Your task to perform on an android device: Open calendar and show me the fourth week of next month Image 0: 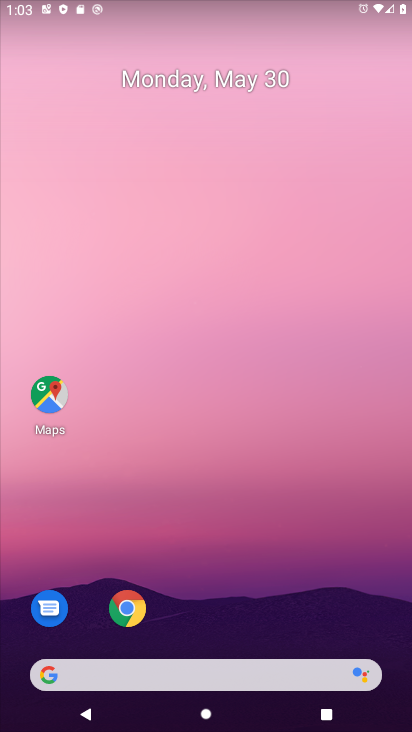
Step 0: drag from (193, 235) to (193, 163)
Your task to perform on an android device: Open calendar and show me the fourth week of next month Image 1: 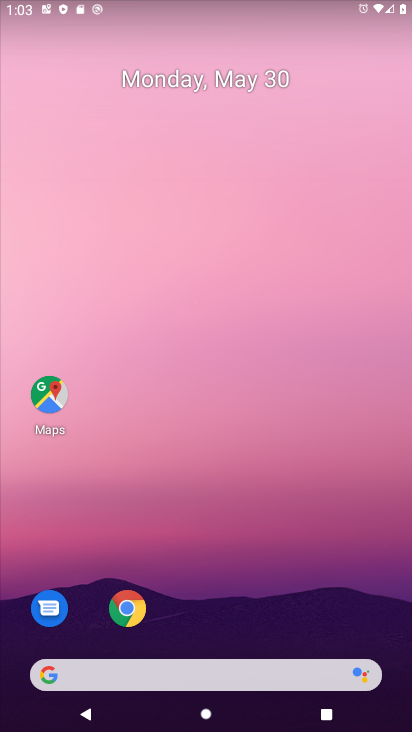
Step 1: drag from (240, 678) to (236, 107)
Your task to perform on an android device: Open calendar and show me the fourth week of next month Image 2: 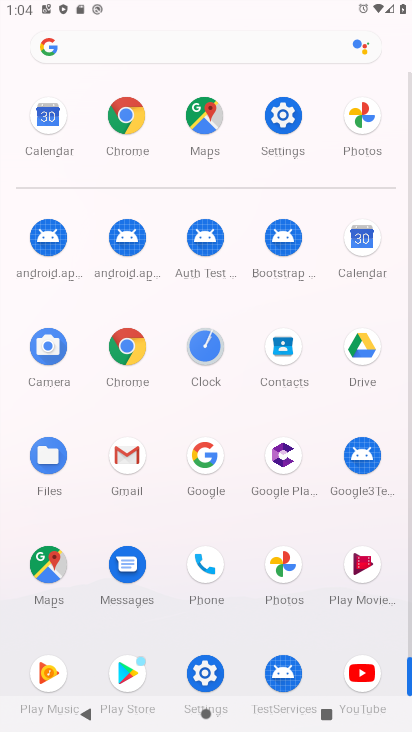
Step 2: click (367, 237)
Your task to perform on an android device: Open calendar and show me the fourth week of next month Image 3: 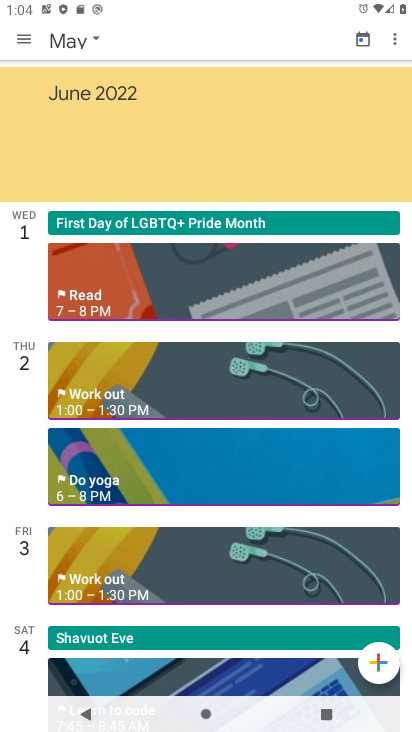
Step 3: click (23, 30)
Your task to perform on an android device: Open calendar and show me the fourth week of next month Image 4: 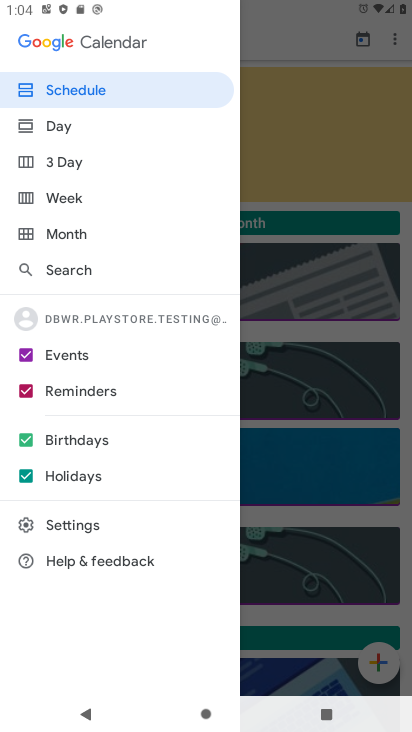
Step 4: click (75, 198)
Your task to perform on an android device: Open calendar and show me the fourth week of next month Image 5: 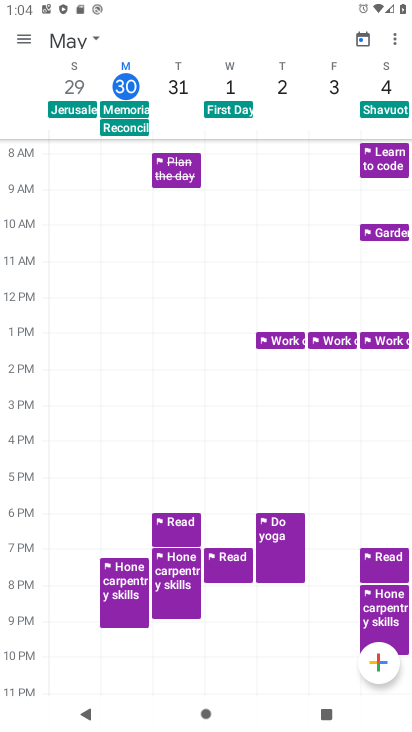
Step 5: click (14, 40)
Your task to perform on an android device: Open calendar and show me the fourth week of next month Image 6: 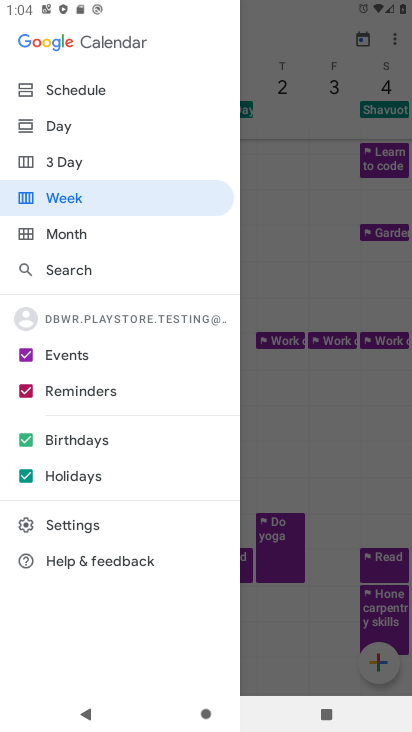
Step 6: click (83, 235)
Your task to perform on an android device: Open calendar and show me the fourth week of next month Image 7: 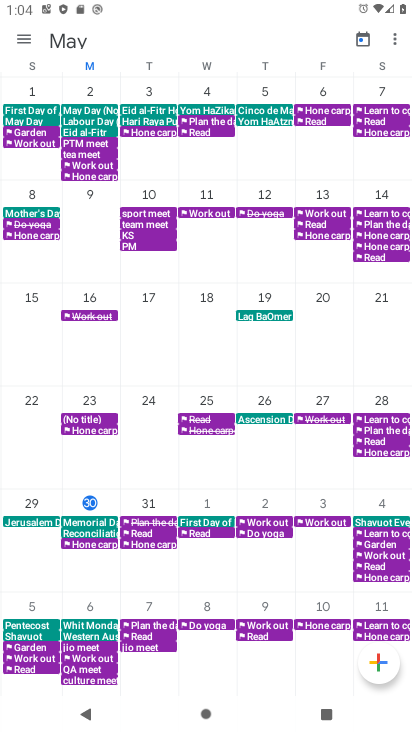
Step 7: task complete